Your task to perform on an android device: Check the news Image 0: 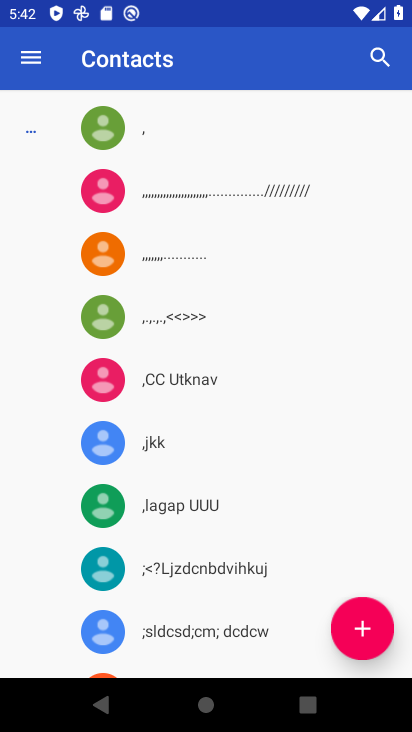
Step 0: press home button
Your task to perform on an android device: Check the news Image 1: 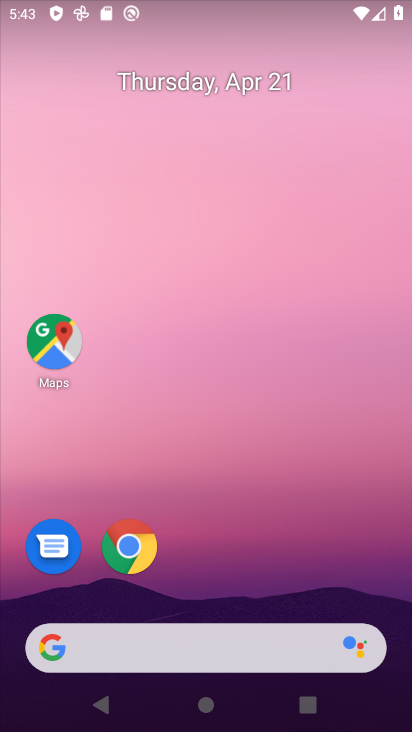
Step 1: click (232, 639)
Your task to perform on an android device: Check the news Image 2: 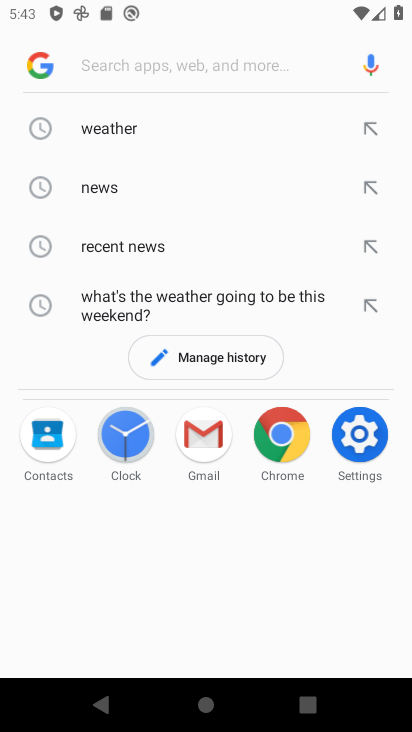
Step 2: click (162, 183)
Your task to perform on an android device: Check the news Image 3: 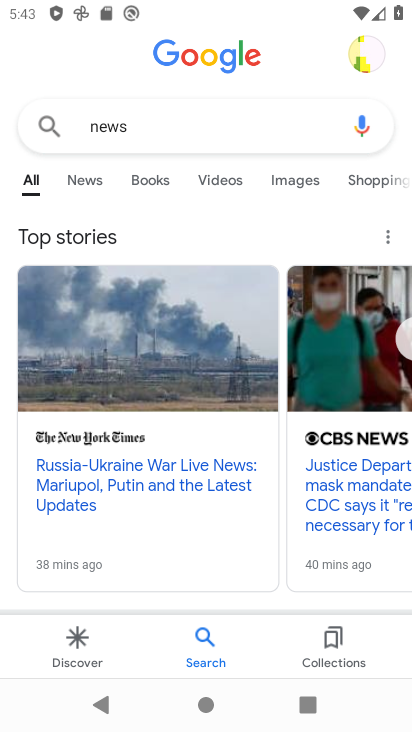
Step 3: click (81, 175)
Your task to perform on an android device: Check the news Image 4: 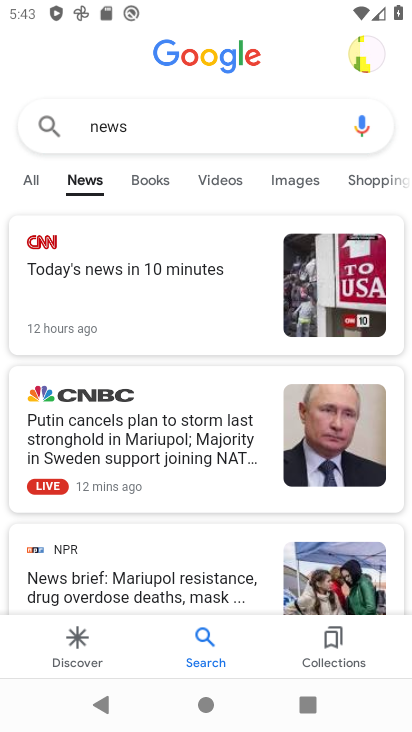
Step 4: task complete